Your task to perform on an android device: show emergency info Image 0: 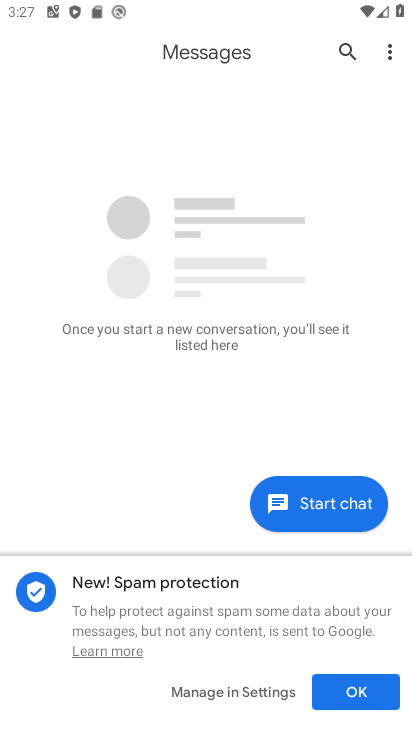
Step 0: press home button
Your task to perform on an android device: show emergency info Image 1: 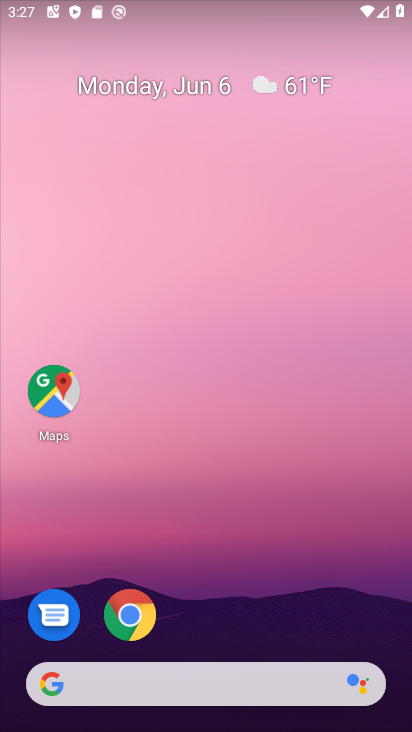
Step 1: drag from (373, 646) to (313, 131)
Your task to perform on an android device: show emergency info Image 2: 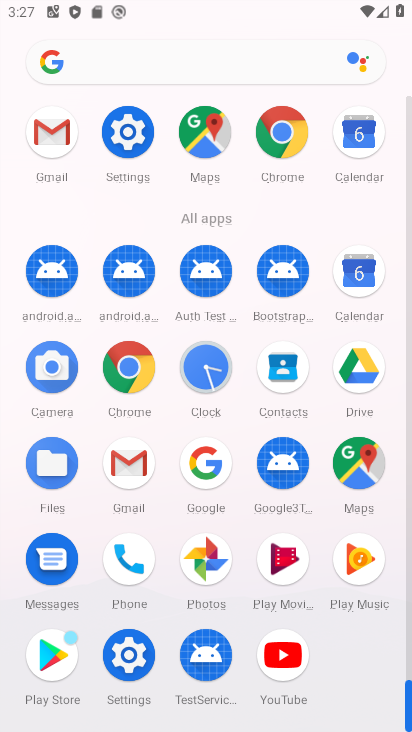
Step 2: click (125, 652)
Your task to perform on an android device: show emergency info Image 3: 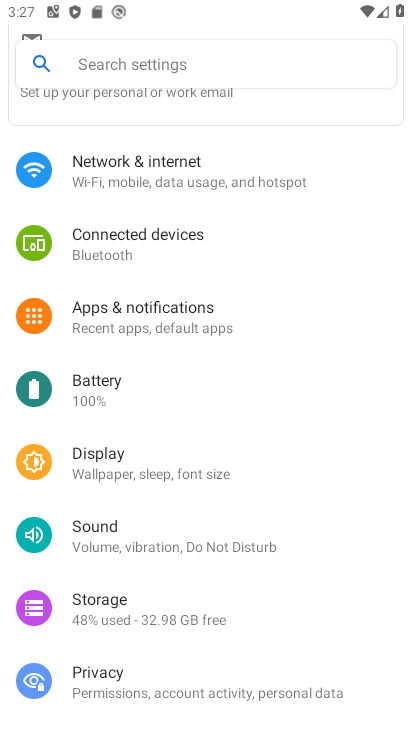
Step 3: drag from (297, 583) to (285, 196)
Your task to perform on an android device: show emergency info Image 4: 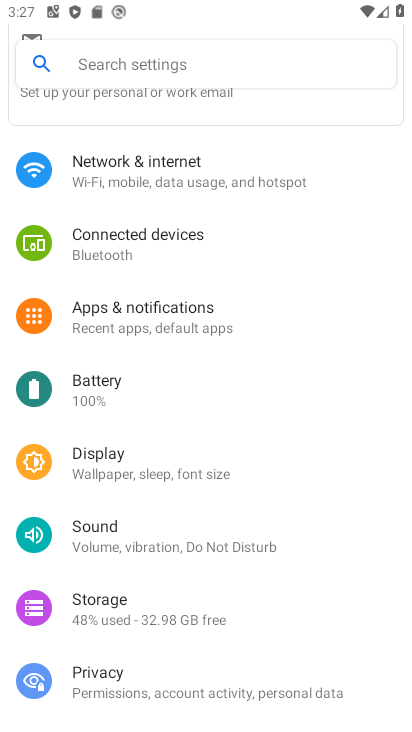
Step 4: drag from (298, 433) to (298, 200)
Your task to perform on an android device: show emergency info Image 5: 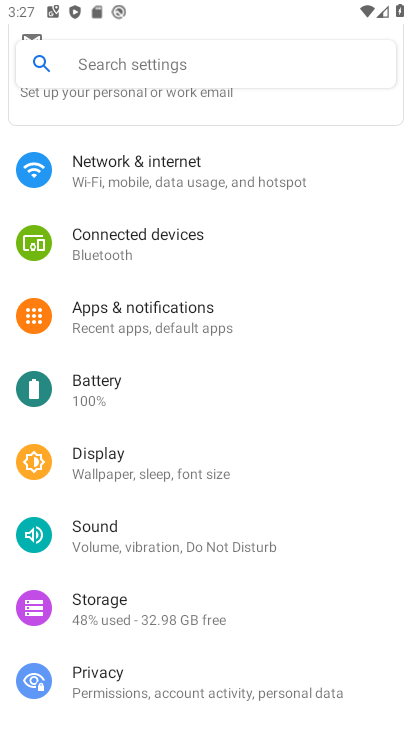
Step 5: drag from (341, 622) to (304, 196)
Your task to perform on an android device: show emergency info Image 6: 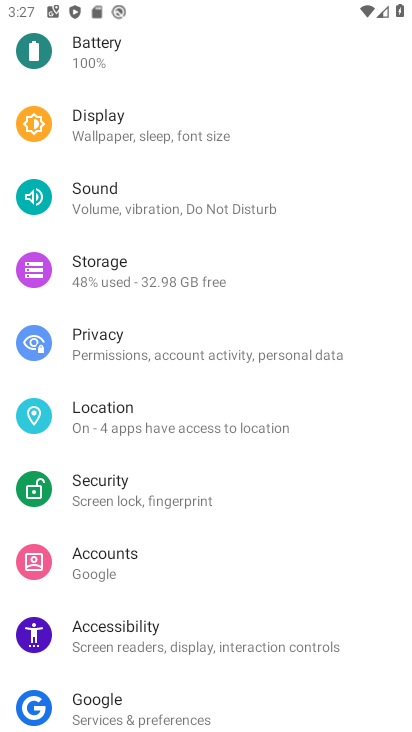
Step 6: drag from (334, 694) to (345, 254)
Your task to perform on an android device: show emergency info Image 7: 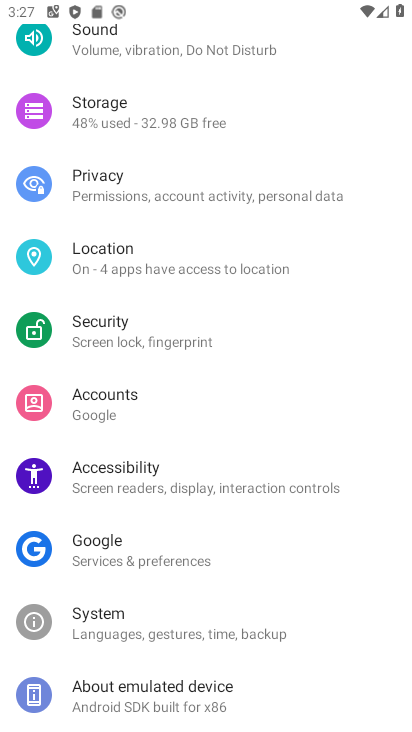
Step 7: click (112, 704)
Your task to perform on an android device: show emergency info Image 8: 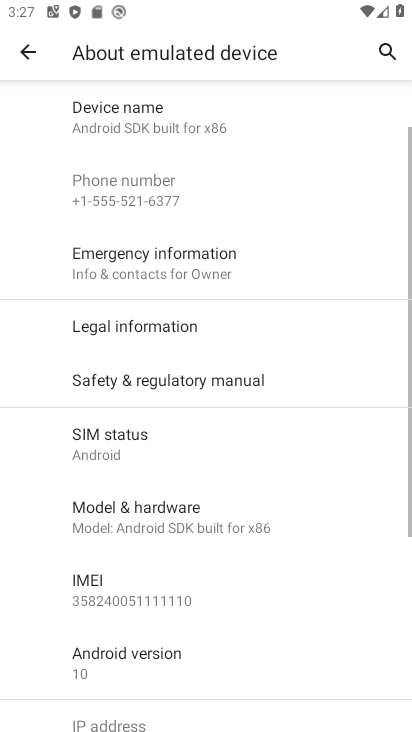
Step 8: click (151, 257)
Your task to perform on an android device: show emergency info Image 9: 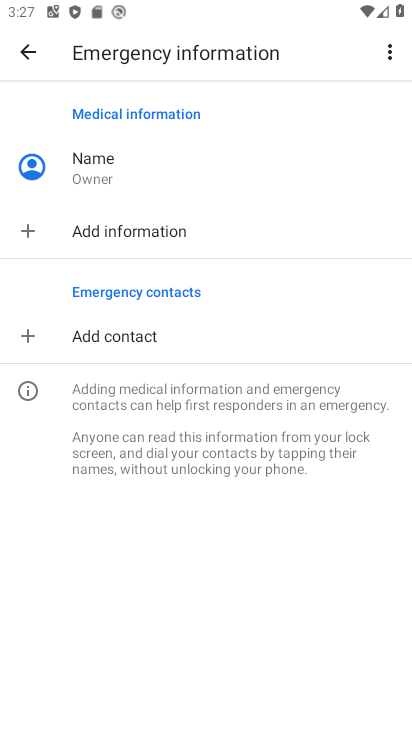
Step 9: task complete